Your task to perform on an android device: open app "Microsoft Outlook" Image 0: 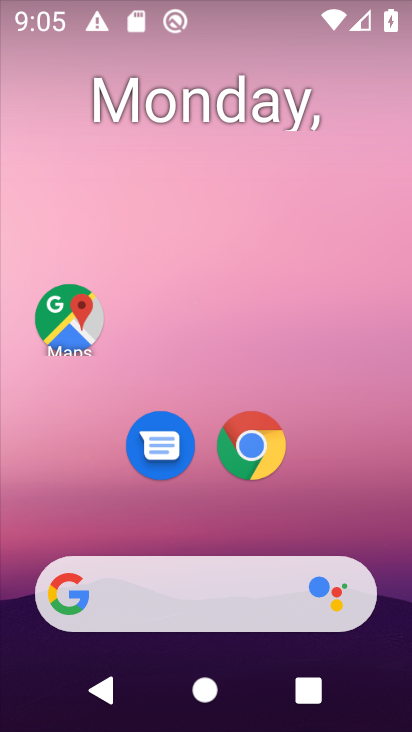
Step 0: drag from (403, 605) to (219, 99)
Your task to perform on an android device: open app "Microsoft Outlook" Image 1: 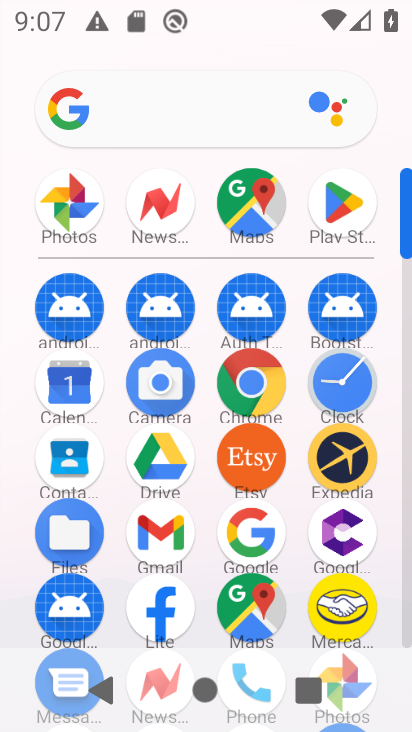
Step 1: click (353, 223)
Your task to perform on an android device: open app "Microsoft Outlook" Image 2: 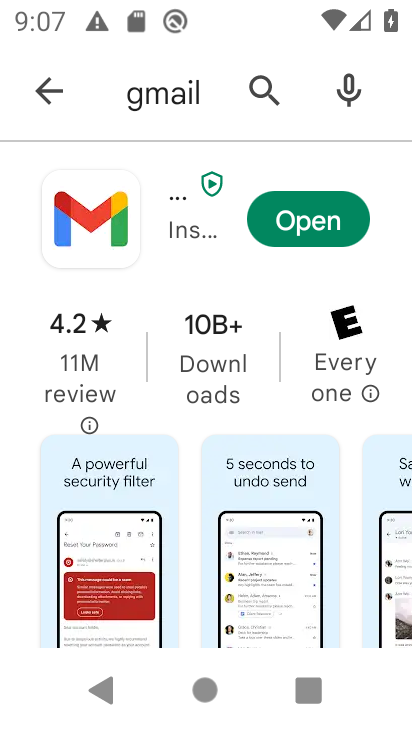
Step 2: press back button
Your task to perform on an android device: open app "Microsoft Outlook" Image 3: 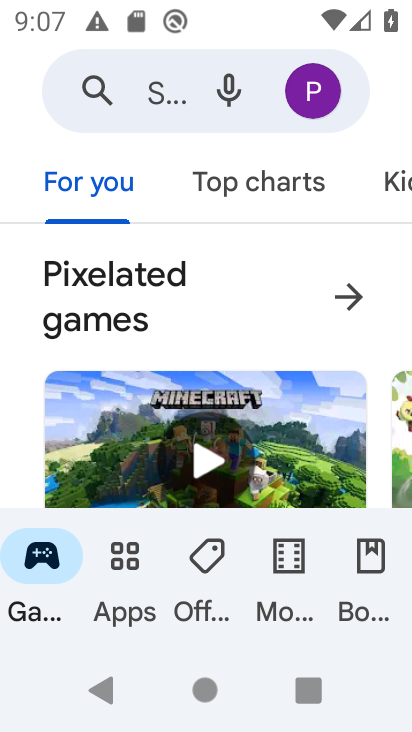
Step 3: type "Microsoft Outlook"
Your task to perform on an android device: open app "Microsoft Outlook" Image 4: 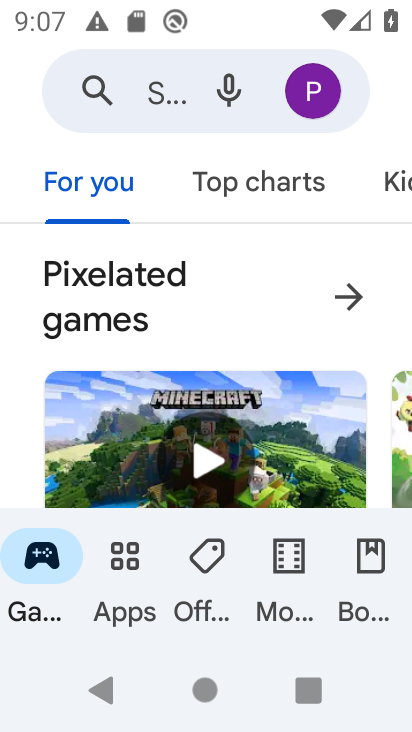
Step 4: click (150, 100)
Your task to perform on an android device: open app "Microsoft Outlook" Image 5: 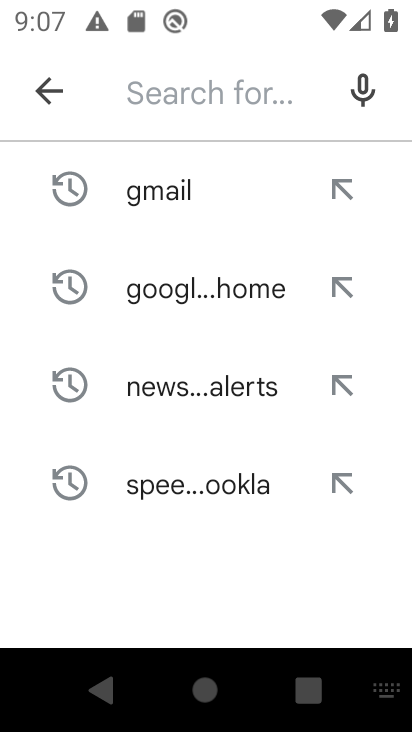
Step 5: type "Microsoft Outlook"
Your task to perform on an android device: open app "Microsoft Outlook" Image 6: 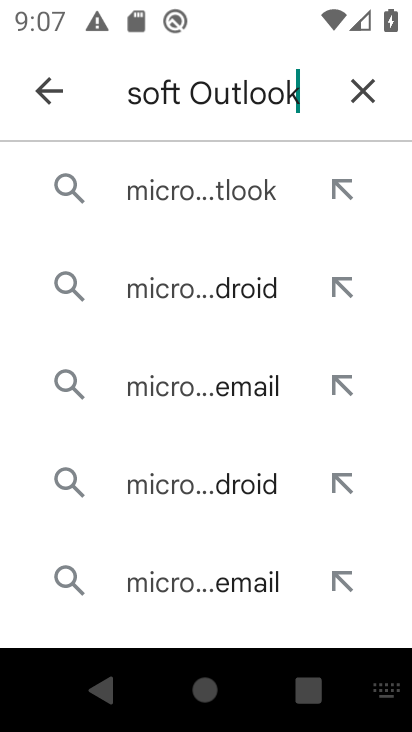
Step 6: click (158, 182)
Your task to perform on an android device: open app "Microsoft Outlook" Image 7: 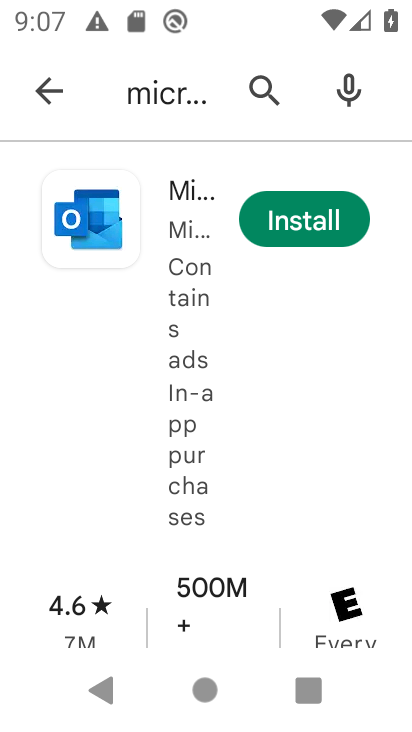
Step 7: task complete